Your task to perform on an android device: turn off notifications in google photos Image 0: 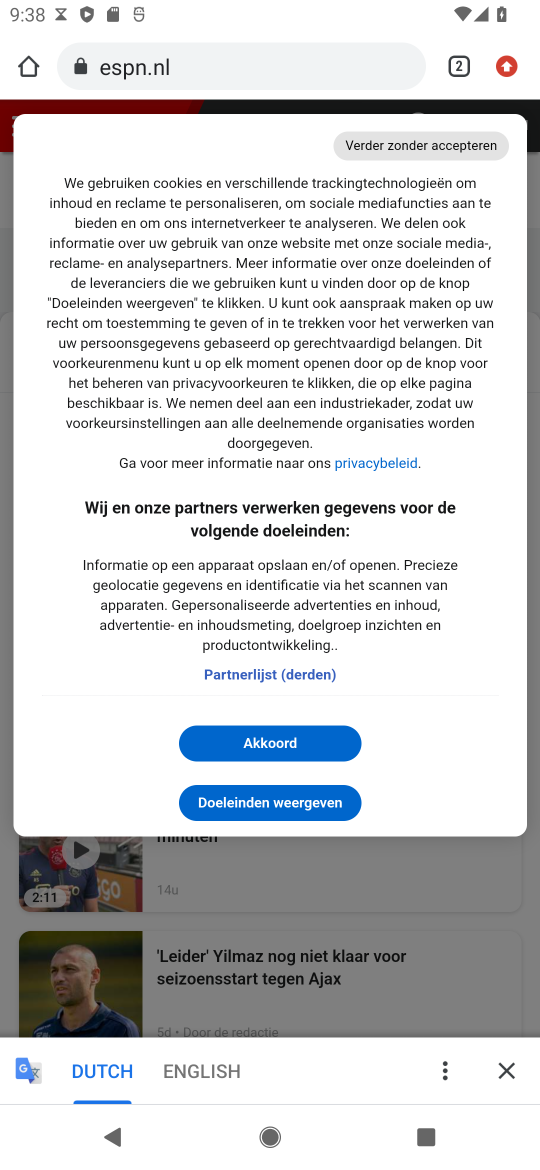
Step 0: press home button
Your task to perform on an android device: turn off notifications in google photos Image 1: 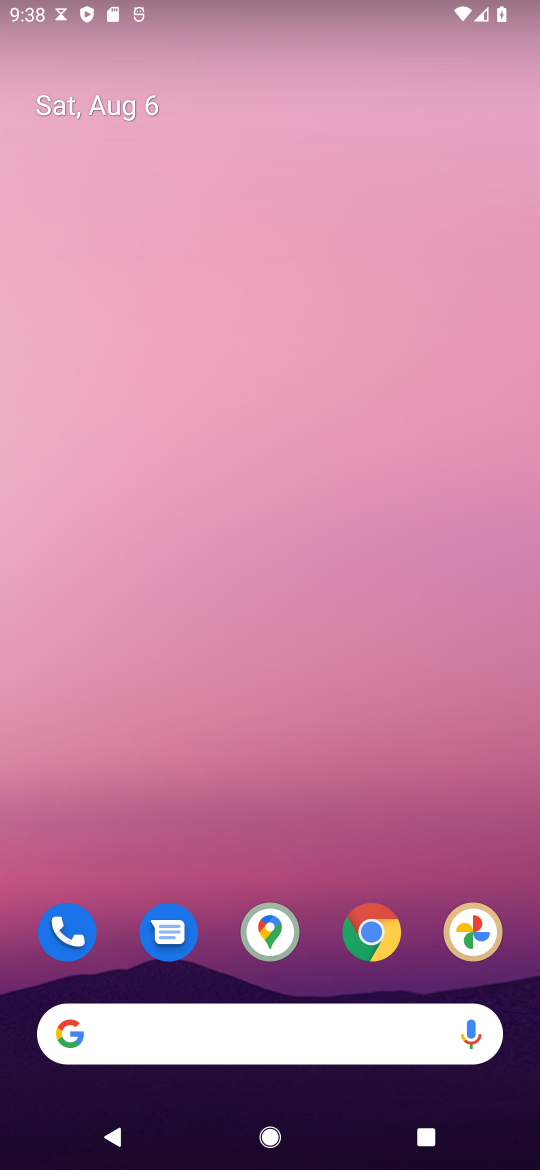
Step 1: drag from (276, 1020) to (324, 336)
Your task to perform on an android device: turn off notifications in google photos Image 2: 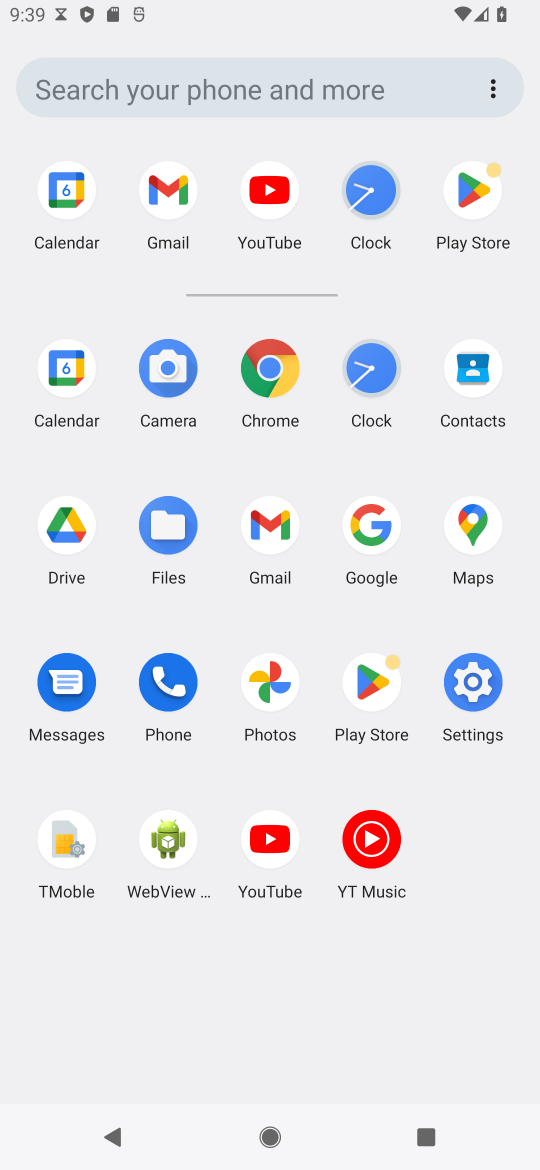
Step 2: click (267, 678)
Your task to perform on an android device: turn off notifications in google photos Image 3: 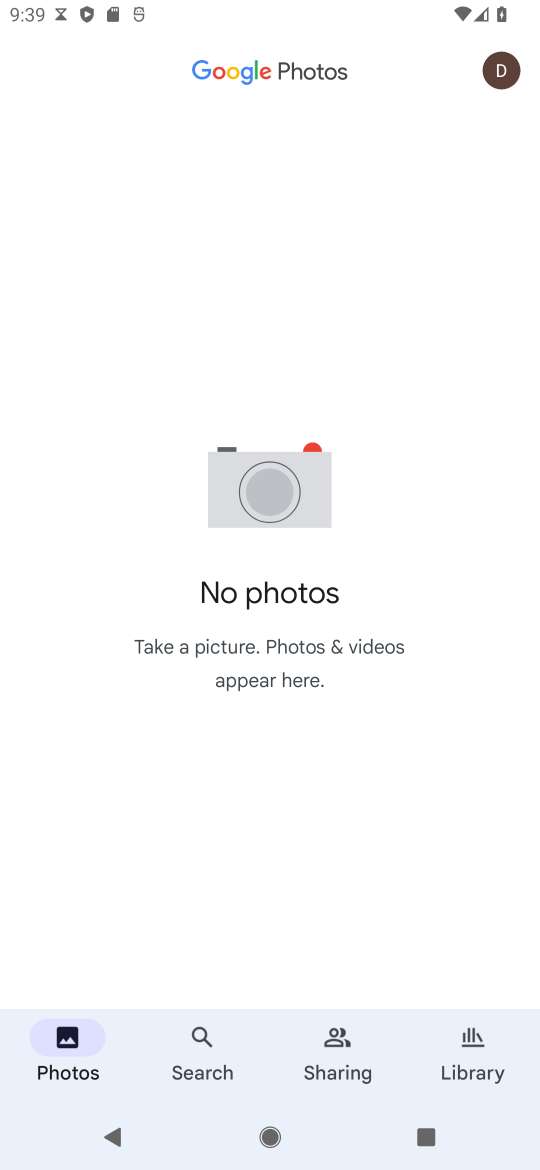
Step 3: click (493, 78)
Your task to perform on an android device: turn off notifications in google photos Image 4: 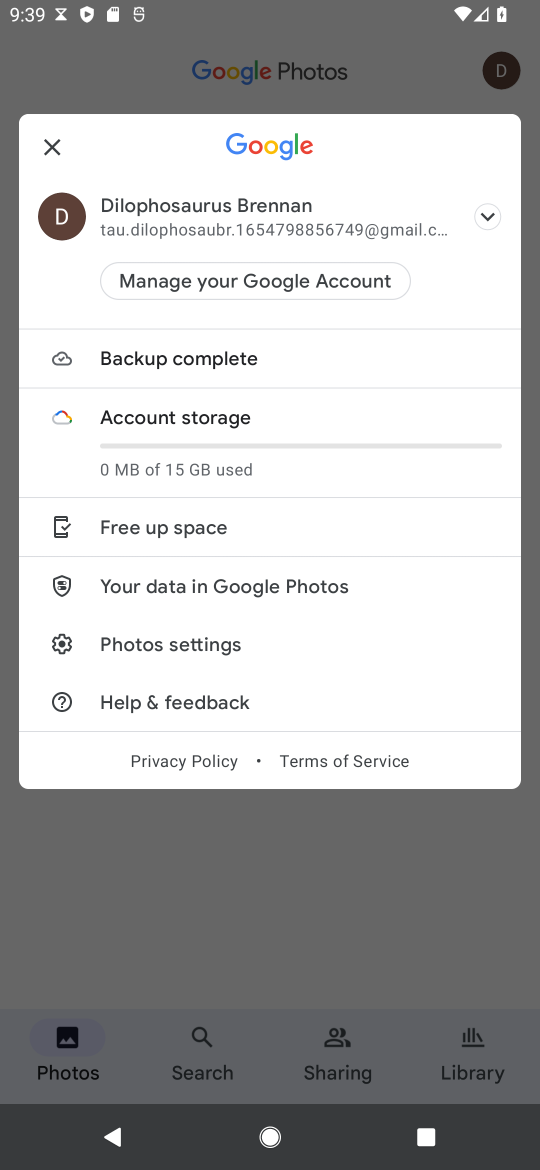
Step 4: click (191, 645)
Your task to perform on an android device: turn off notifications in google photos Image 5: 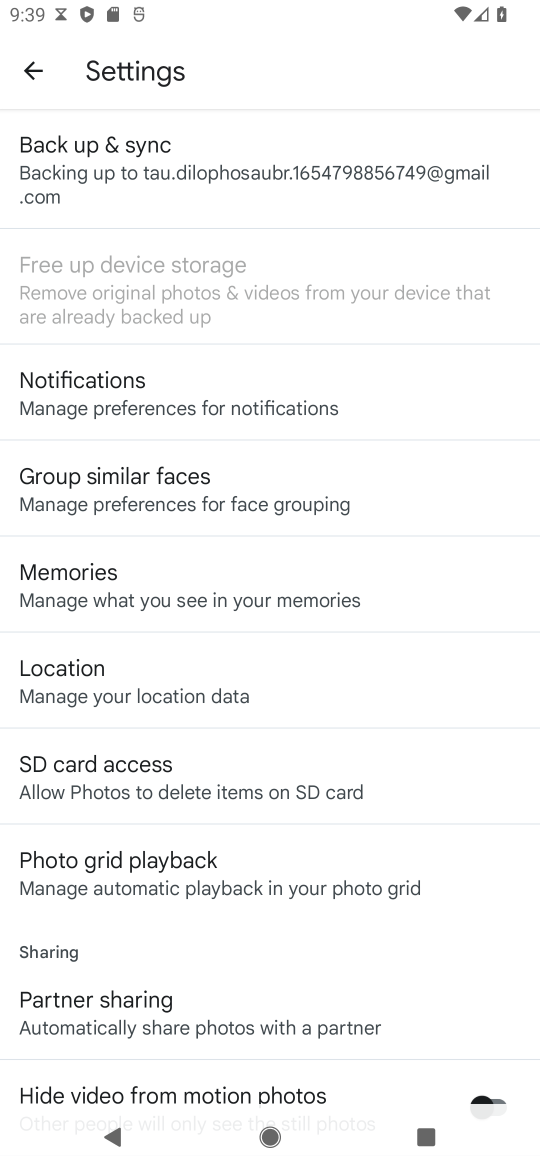
Step 5: click (208, 410)
Your task to perform on an android device: turn off notifications in google photos Image 6: 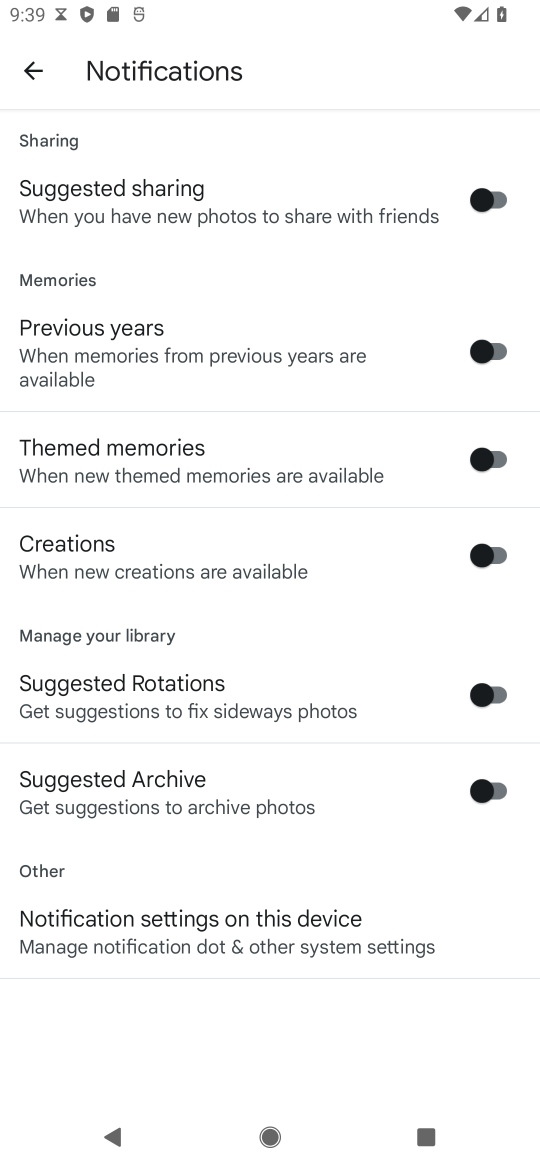
Step 6: click (165, 948)
Your task to perform on an android device: turn off notifications in google photos Image 7: 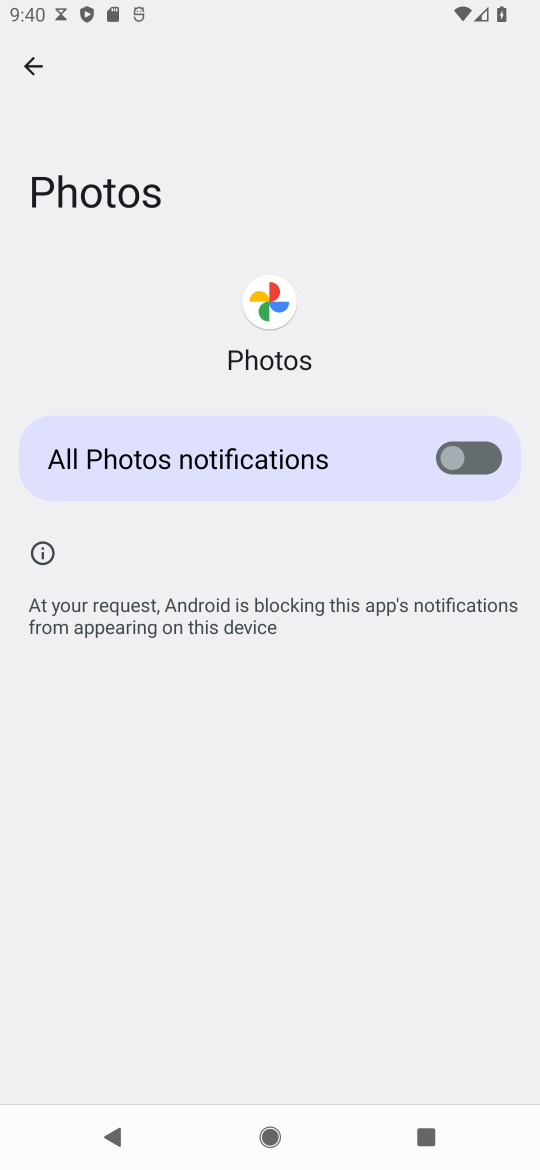
Step 7: task complete